Your task to perform on an android device: Toggle the flashlight Image 0: 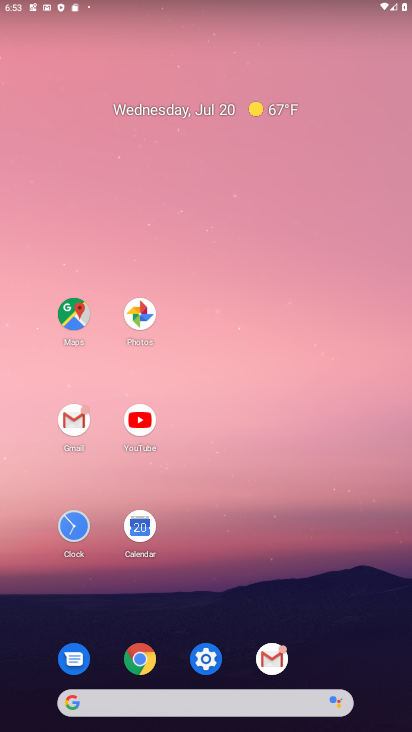
Step 0: click (210, 663)
Your task to perform on an android device: Toggle the flashlight Image 1: 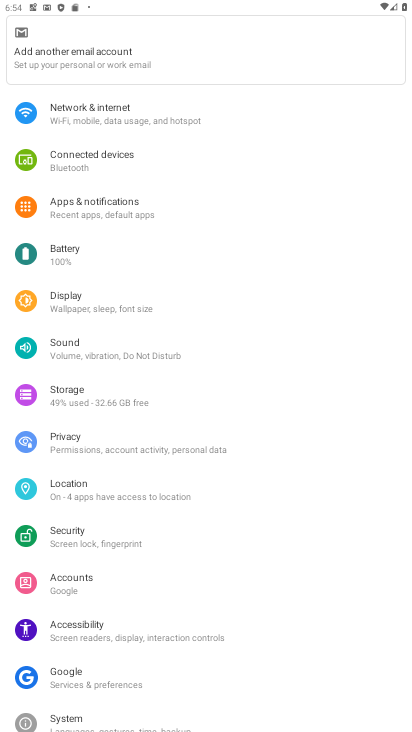
Step 1: click (72, 294)
Your task to perform on an android device: Toggle the flashlight Image 2: 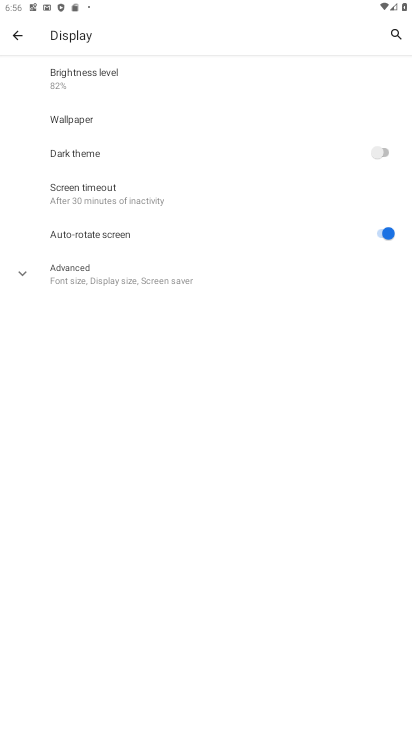
Step 2: task complete